Your task to perform on an android device: check the backup settings in the google photos Image 0: 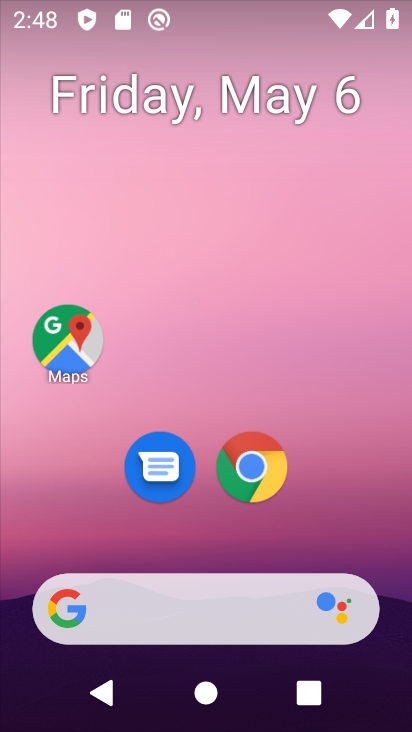
Step 0: drag from (201, 534) to (261, 137)
Your task to perform on an android device: check the backup settings in the google photos Image 1: 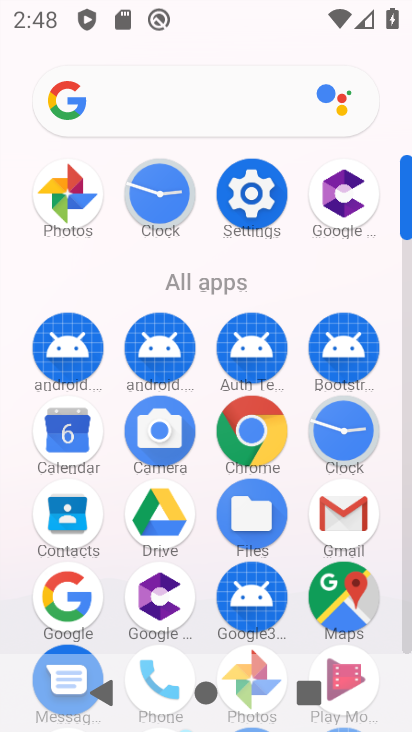
Step 1: click (78, 186)
Your task to perform on an android device: check the backup settings in the google photos Image 2: 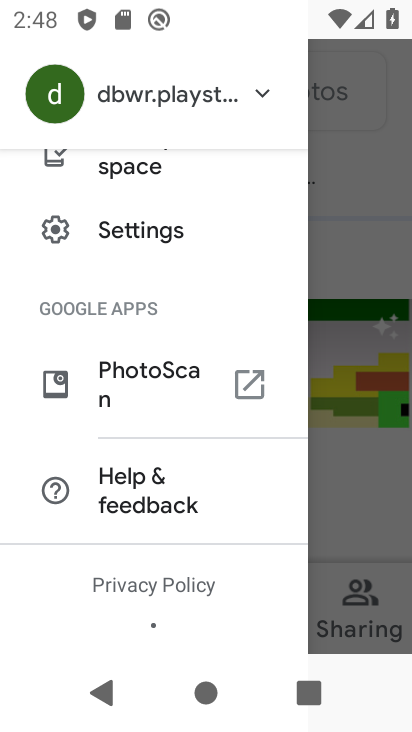
Step 2: click (116, 222)
Your task to perform on an android device: check the backup settings in the google photos Image 3: 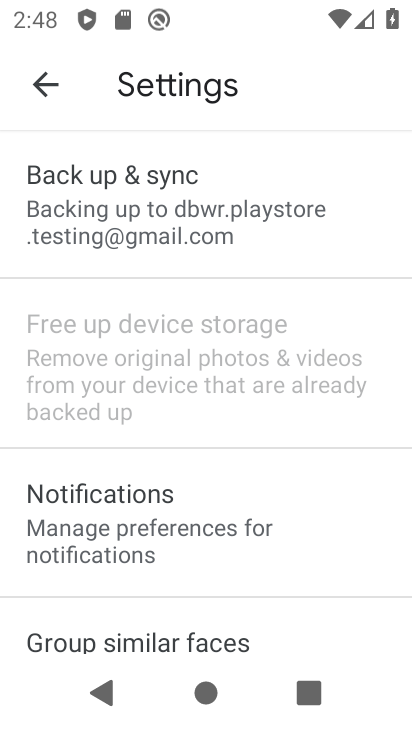
Step 3: click (179, 215)
Your task to perform on an android device: check the backup settings in the google photos Image 4: 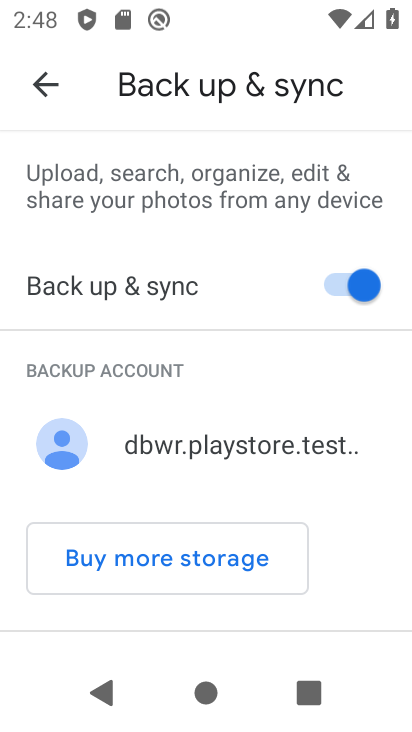
Step 4: task complete